Your task to perform on an android device: toggle pop-ups in chrome Image 0: 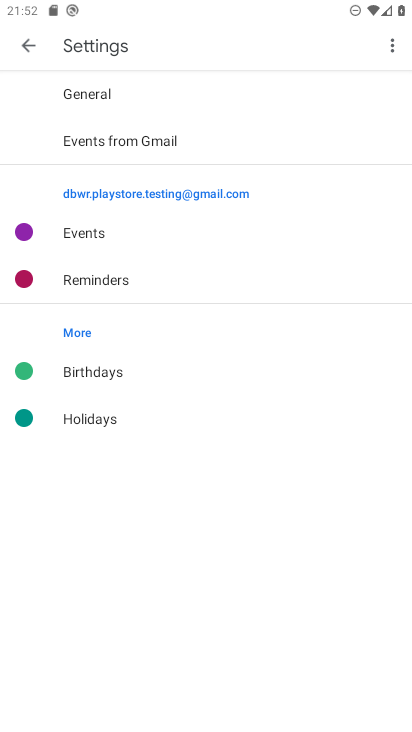
Step 0: press home button
Your task to perform on an android device: toggle pop-ups in chrome Image 1: 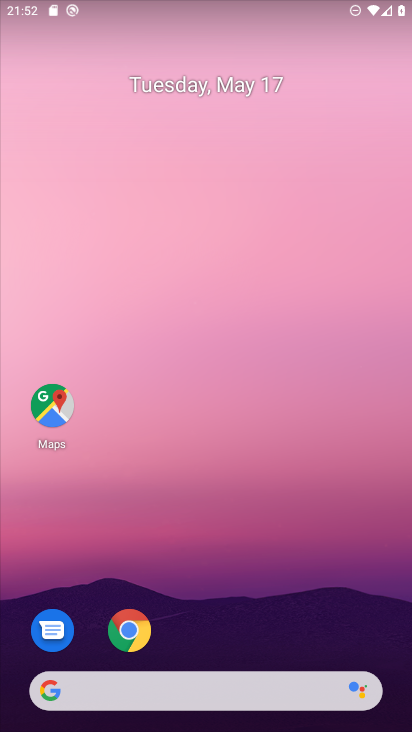
Step 1: drag from (331, 522) to (320, 135)
Your task to perform on an android device: toggle pop-ups in chrome Image 2: 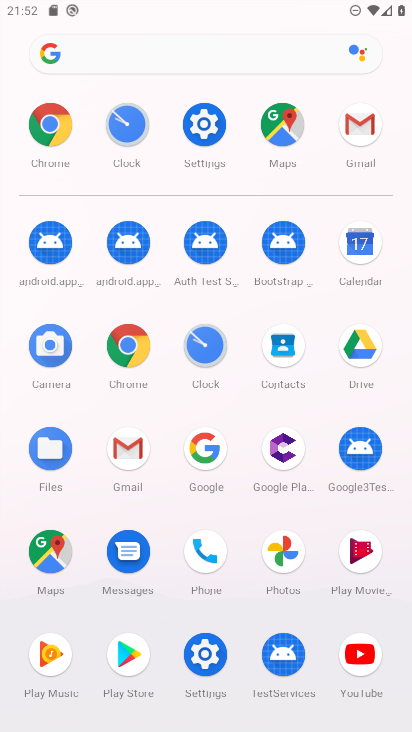
Step 2: click (137, 364)
Your task to perform on an android device: toggle pop-ups in chrome Image 3: 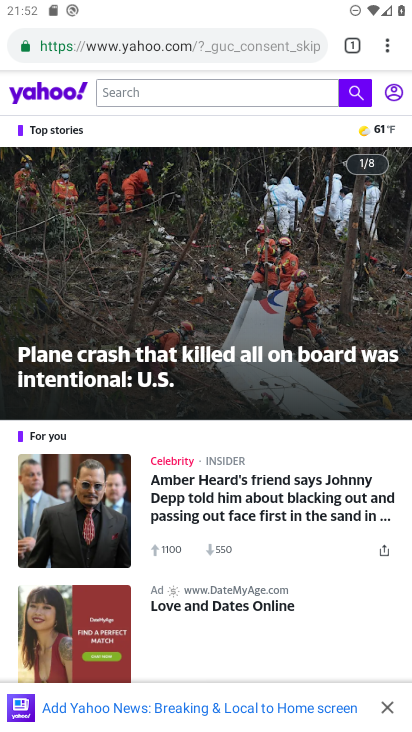
Step 3: click (390, 50)
Your task to perform on an android device: toggle pop-ups in chrome Image 4: 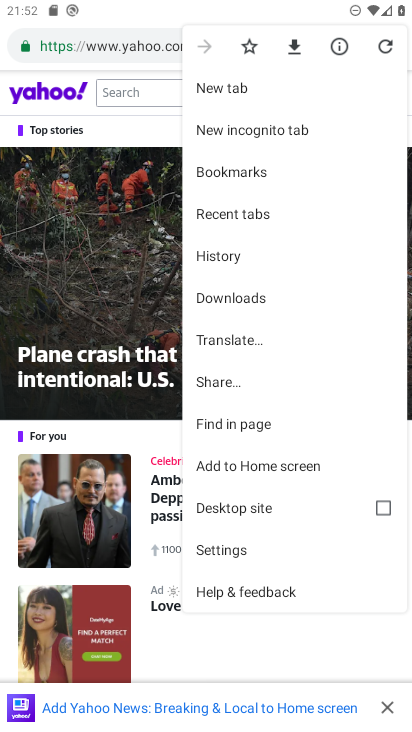
Step 4: click (253, 554)
Your task to perform on an android device: toggle pop-ups in chrome Image 5: 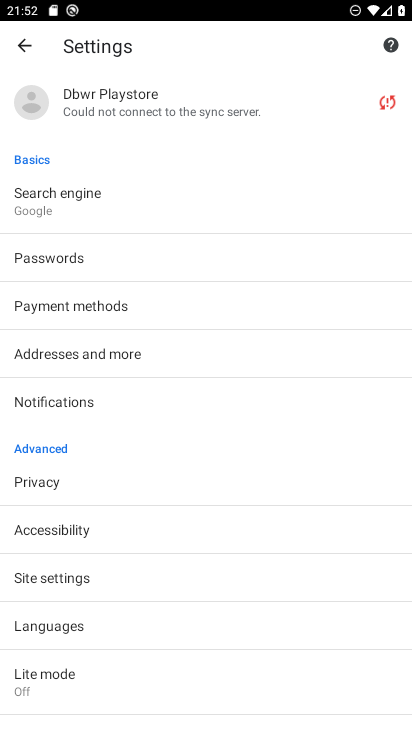
Step 5: drag from (270, 522) to (273, 409)
Your task to perform on an android device: toggle pop-ups in chrome Image 6: 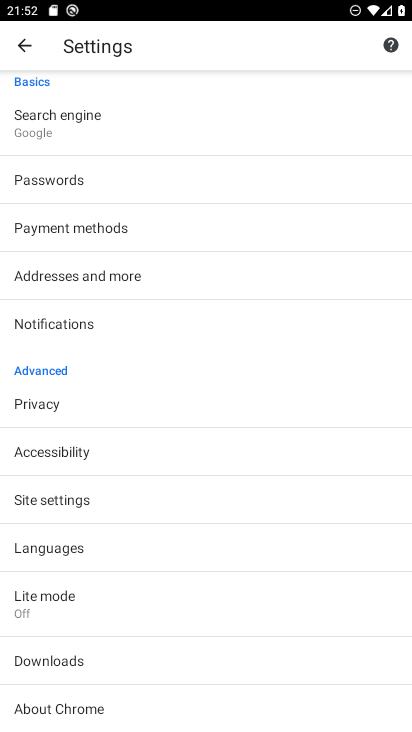
Step 6: drag from (251, 564) to (273, 413)
Your task to perform on an android device: toggle pop-ups in chrome Image 7: 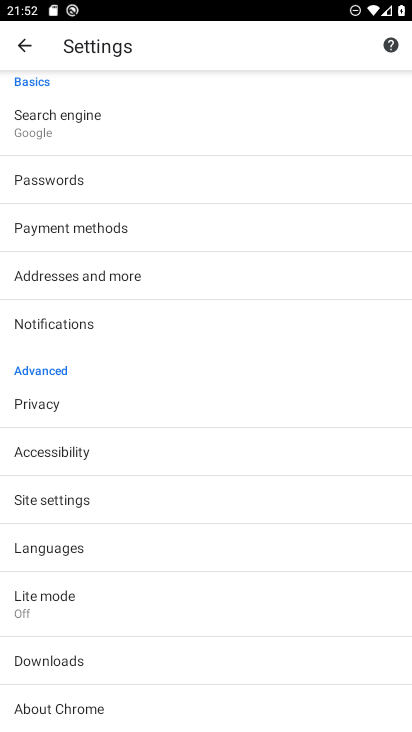
Step 7: click (253, 496)
Your task to perform on an android device: toggle pop-ups in chrome Image 8: 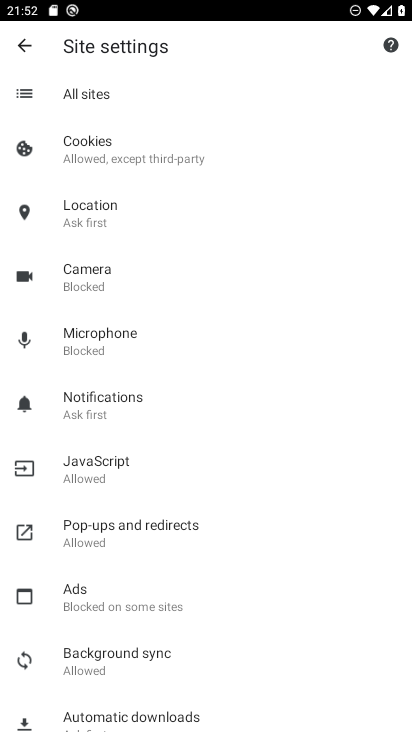
Step 8: drag from (256, 534) to (265, 444)
Your task to perform on an android device: toggle pop-ups in chrome Image 9: 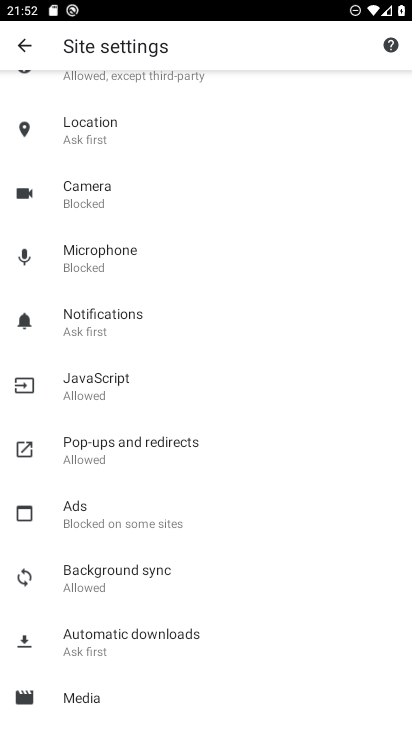
Step 9: drag from (287, 610) to (295, 411)
Your task to perform on an android device: toggle pop-ups in chrome Image 10: 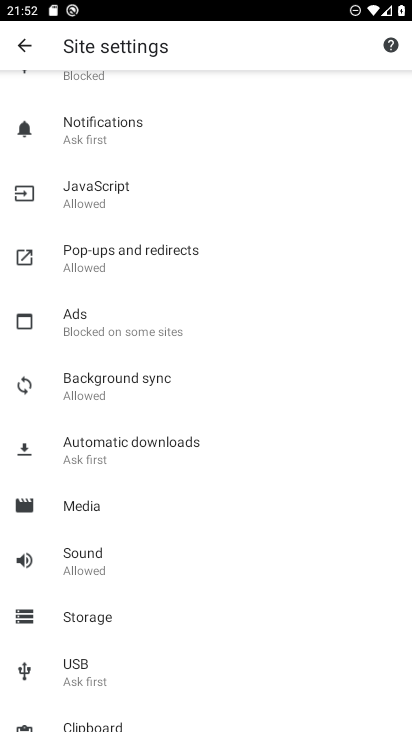
Step 10: drag from (285, 565) to (286, 435)
Your task to perform on an android device: toggle pop-ups in chrome Image 11: 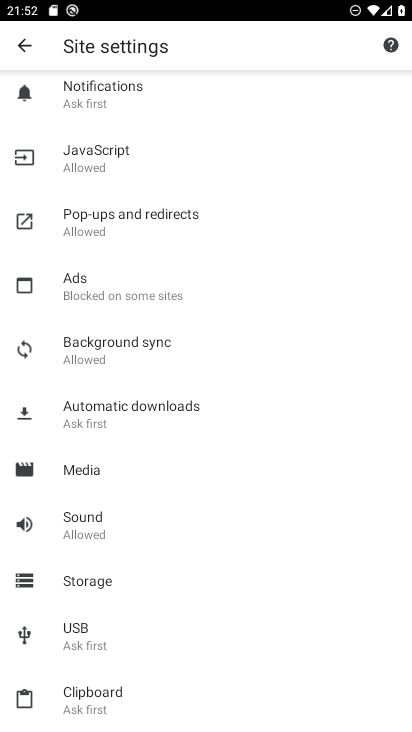
Step 11: drag from (279, 630) to (288, 460)
Your task to perform on an android device: toggle pop-ups in chrome Image 12: 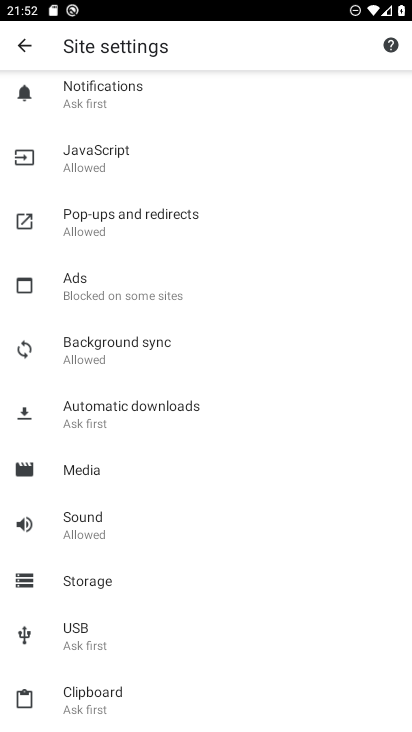
Step 12: drag from (293, 577) to (279, 466)
Your task to perform on an android device: toggle pop-ups in chrome Image 13: 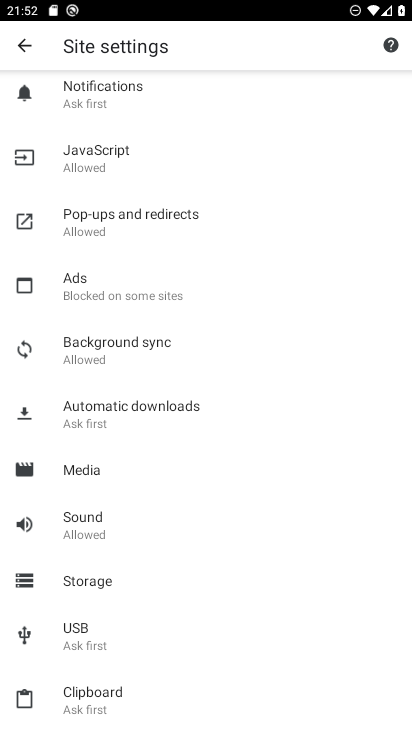
Step 13: click (152, 223)
Your task to perform on an android device: toggle pop-ups in chrome Image 14: 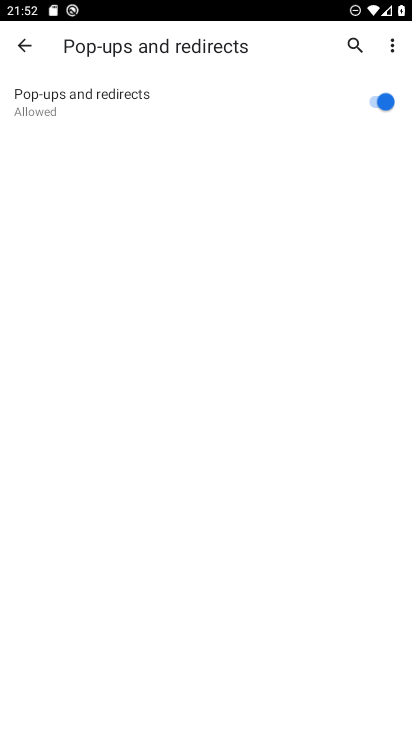
Step 14: click (383, 107)
Your task to perform on an android device: toggle pop-ups in chrome Image 15: 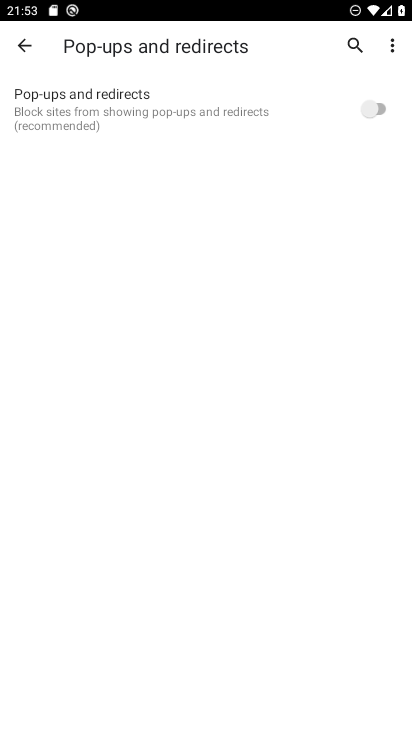
Step 15: task complete